Your task to perform on an android device: Set the phone to "Do not disturb". Image 0: 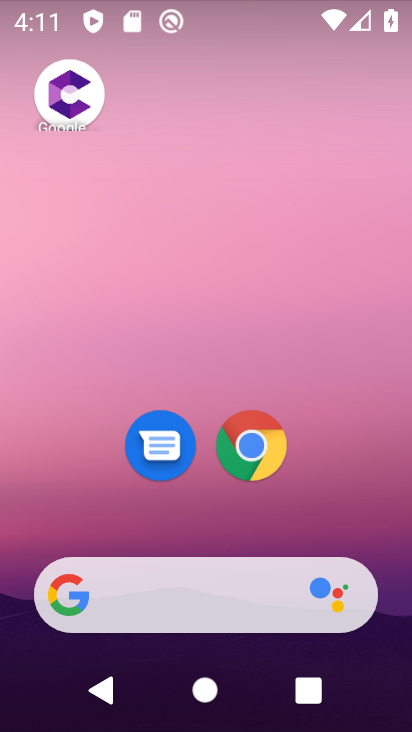
Step 0: drag from (261, 523) to (324, 0)
Your task to perform on an android device: Set the phone to "Do not disturb". Image 1: 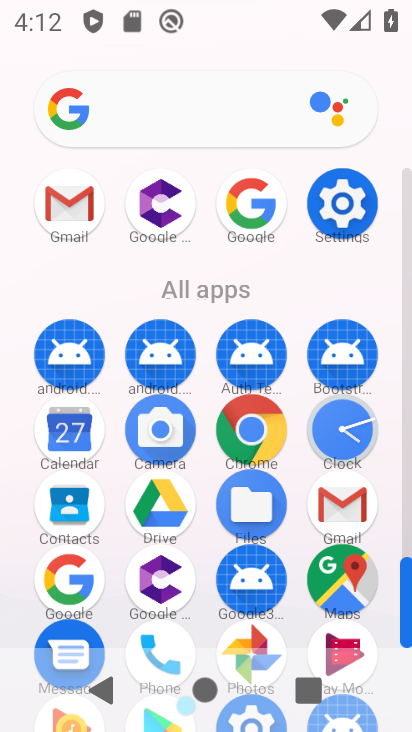
Step 1: drag from (209, 630) to (232, 282)
Your task to perform on an android device: Set the phone to "Do not disturb". Image 2: 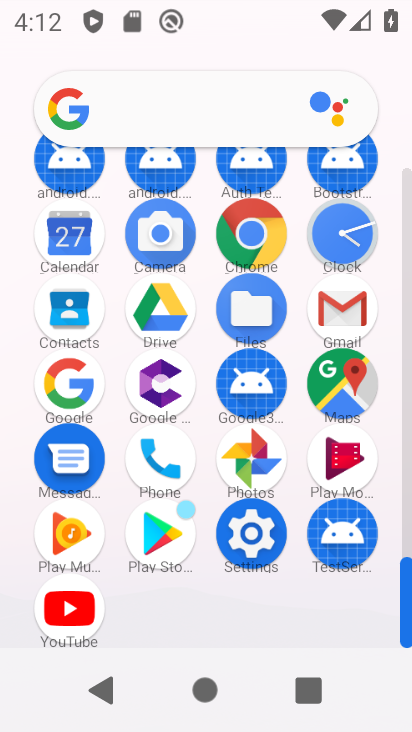
Step 2: click (244, 541)
Your task to perform on an android device: Set the phone to "Do not disturb". Image 3: 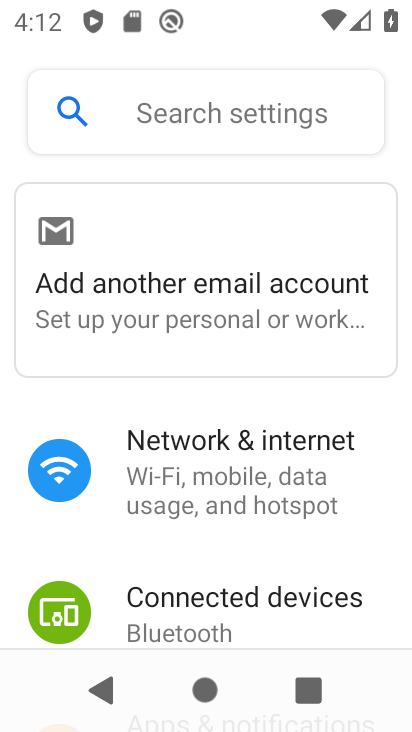
Step 3: drag from (210, 548) to (217, 278)
Your task to perform on an android device: Set the phone to "Do not disturb". Image 4: 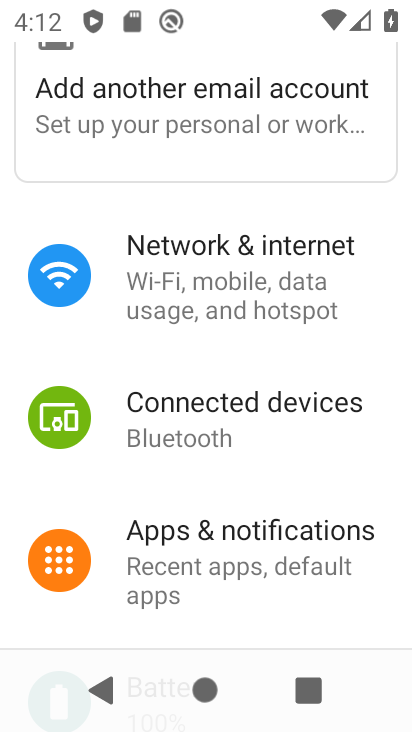
Step 4: drag from (221, 601) to (271, 222)
Your task to perform on an android device: Set the phone to "Do not disturb". Image 5: 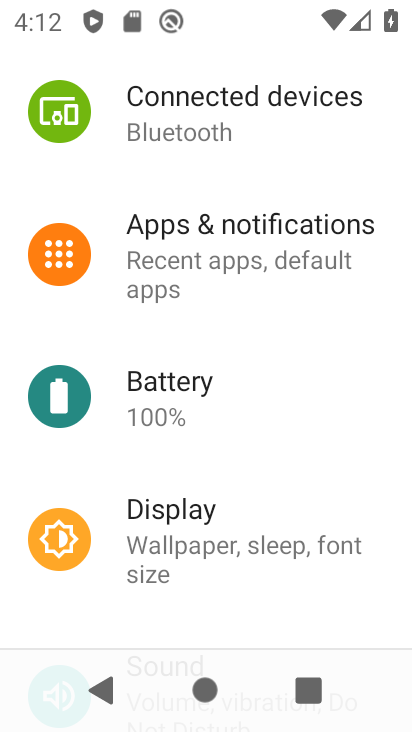
Step 5: drag from (223, 463) to (258, 172)
Your task to perform on an android device: Set the phone to "Do not disturb". Image 6: 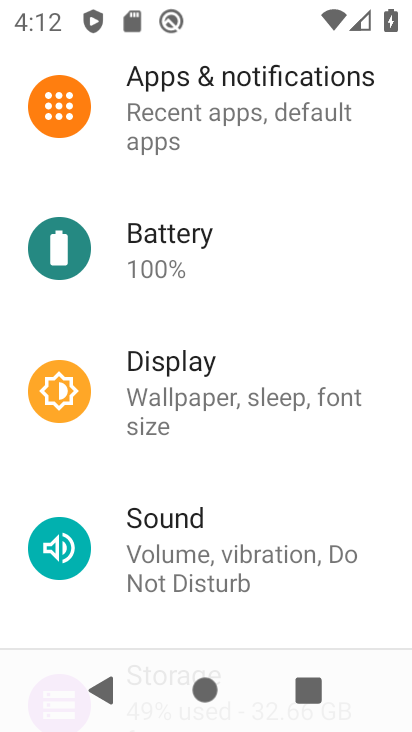
Step 6: click (190, 569)
Your task to perform on an android device: Set the phone to "Do not disturb". Image 7: 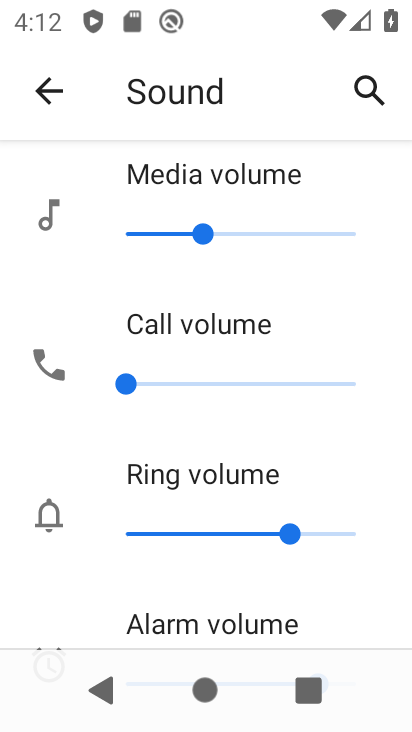
Step 7: drag from (202, 559) to (268, 196)
Your task to perform on an android device: Set the phone to "Do not disturb". Image 8: 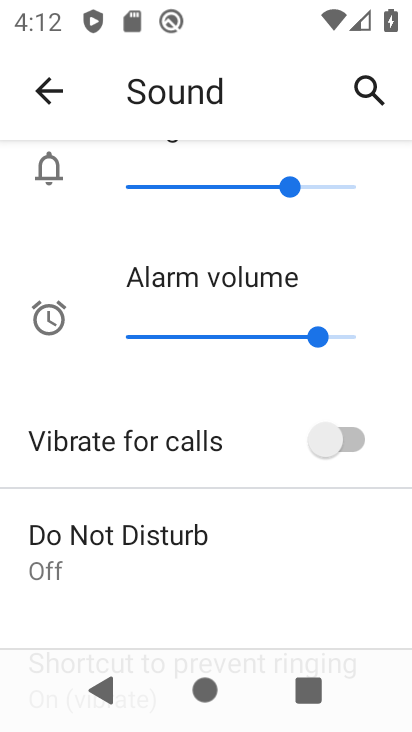
Step 8: drag from (177, 578) to (218, 258)
Your task to perform on an android device: Set the phone to "Do not disturb". Image 9: 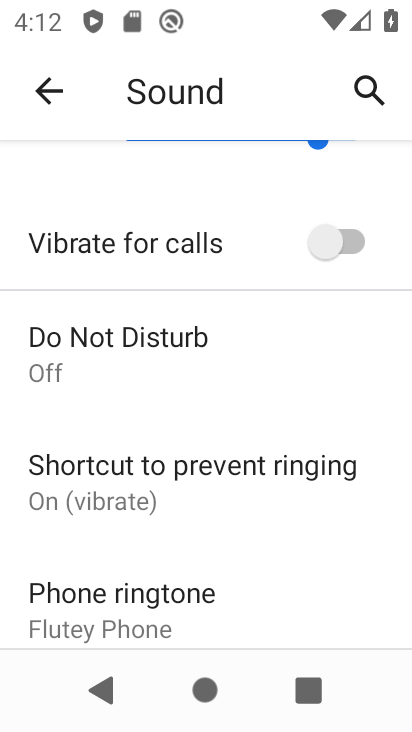
Step 9: click (88, 358)
Your task to perform on an android device: Set the phone to "Do not disturb". Image 10: 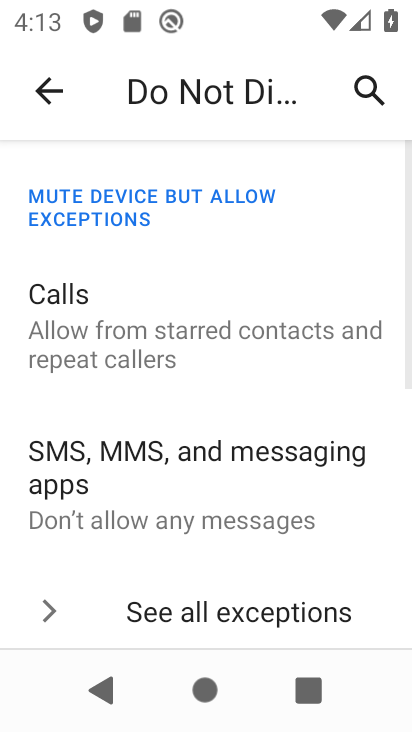
Step 10: drag from (181, 548) to (281, 151)
Your task to perform on an android device: Set the phone to "Do not disturb". Image 11: 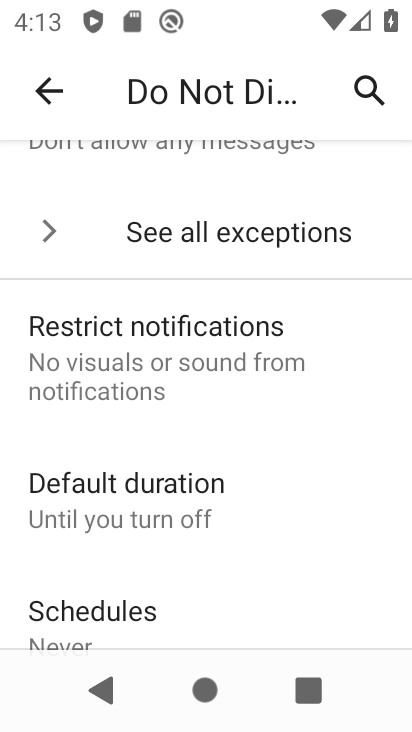
Step 11: drag from (200, 534) to (324, 84)
Your task to perform on an android device: Set the phone to "Do not disturb". Image 12: 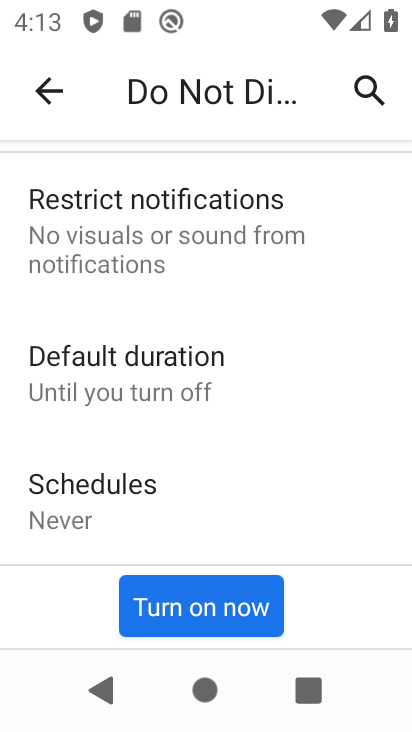
Step 12: click (187, 615)
Your task to perform on an android device: Set the phone to "Do not disturb". Image 13: 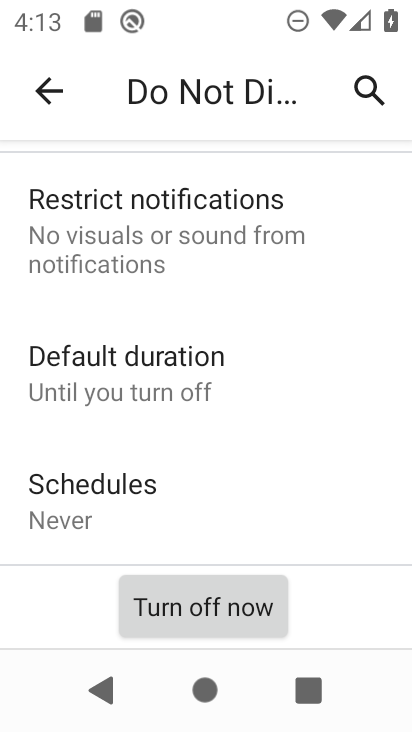
Step 13: task complete